Your task to perform on an android device: Look up the best rated coffee table on Ikea Image 0: 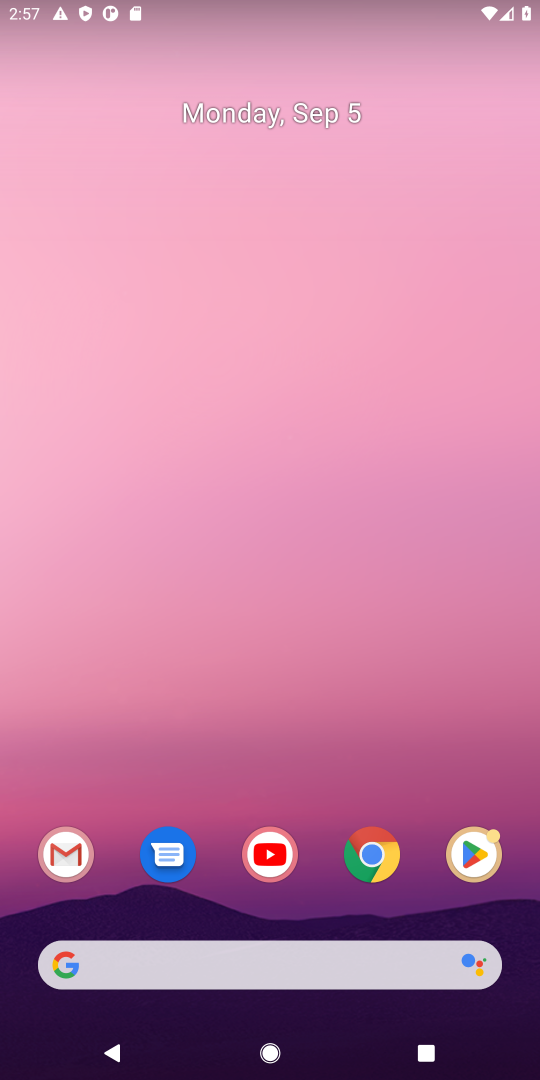
Step 0: press home button
Your task to perform on an android device: Look up the best rated coffee table on Ikea Image 1: 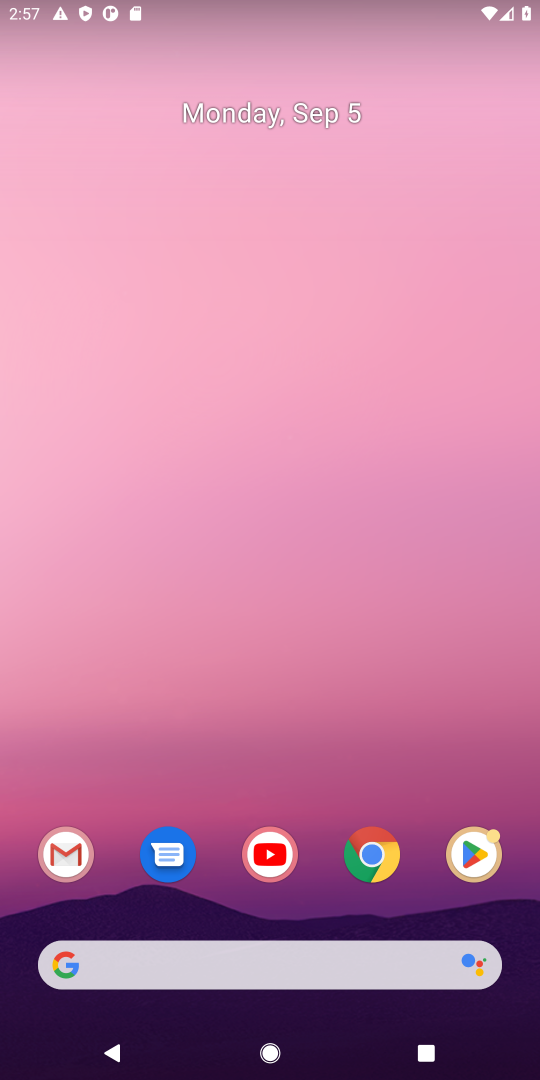
Step 1: click (289, 956)
Your task to perform on an android device: Look up the best rated coffee table on Ikea Image 2: 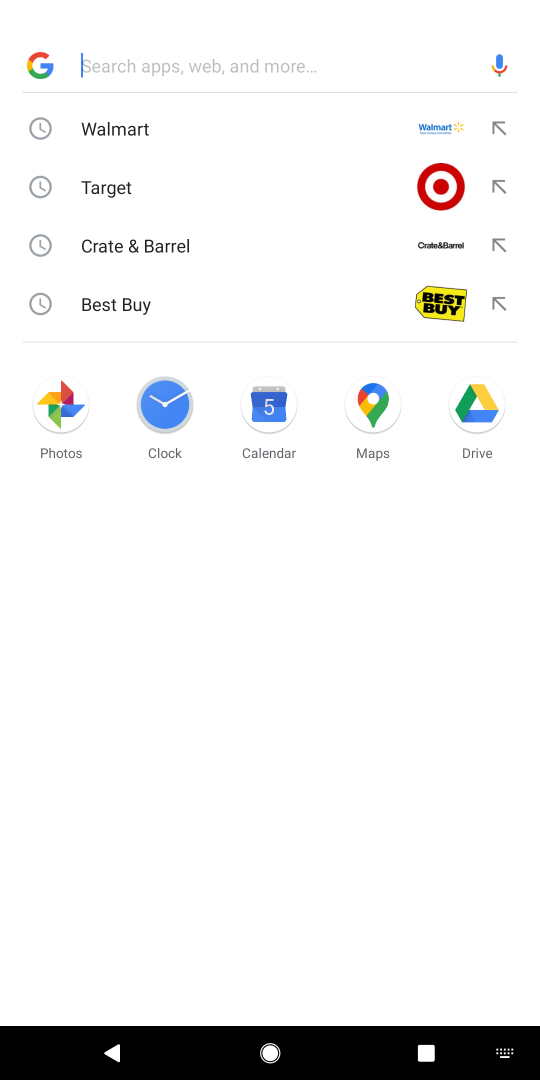
Step 2: type "ikea"
Your task to perform on an android device: Look up the best rated coffee table on Ikea Image 3: 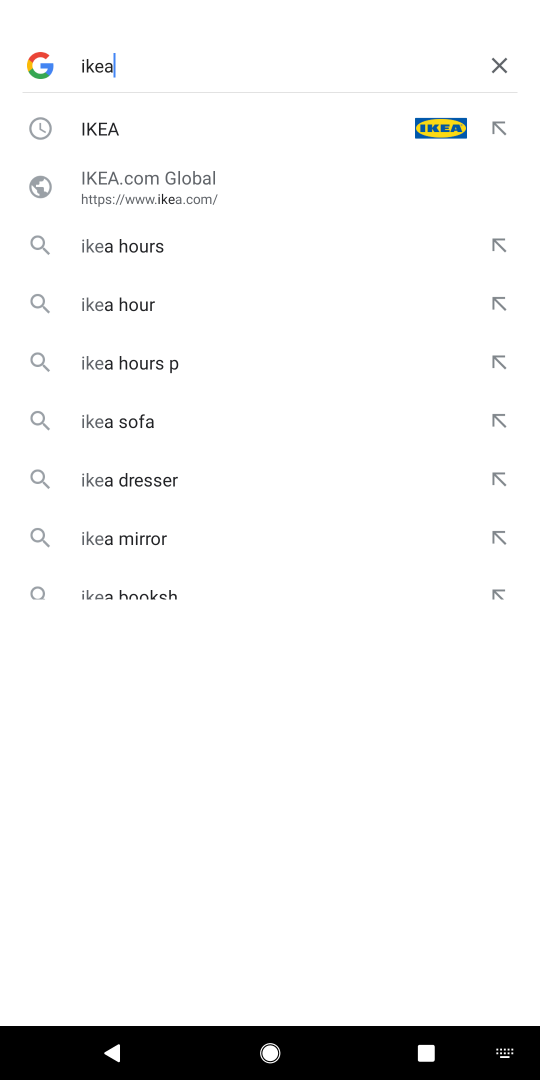
Step 3: press enter
Your task to perform on an android device: Look up the best rated coffee table on Ikea Image 4: 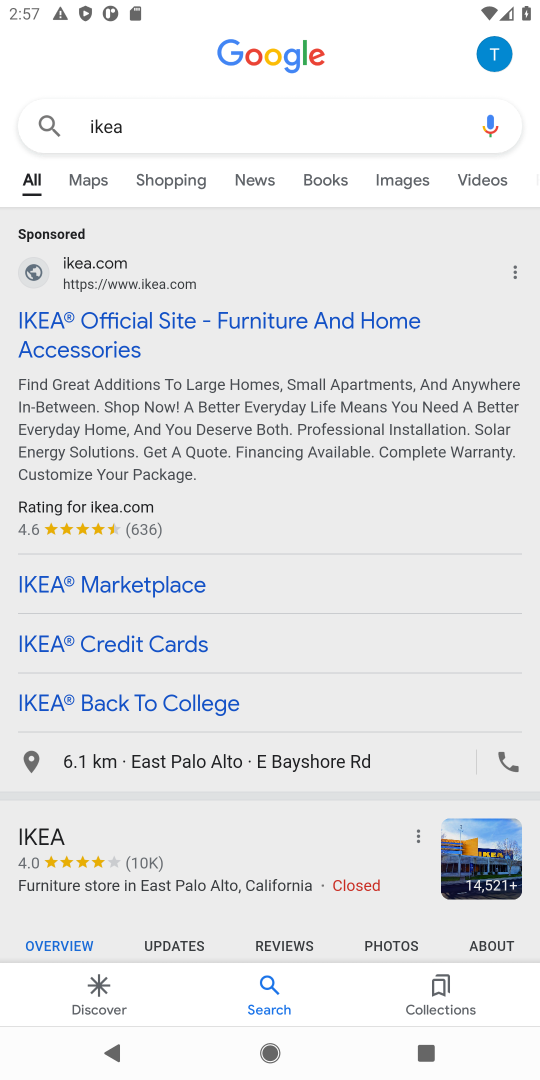
Step 4: click (142, 313)
Your task to perform on an android device: Look up the best rated coffee table on Ikea Image 5: 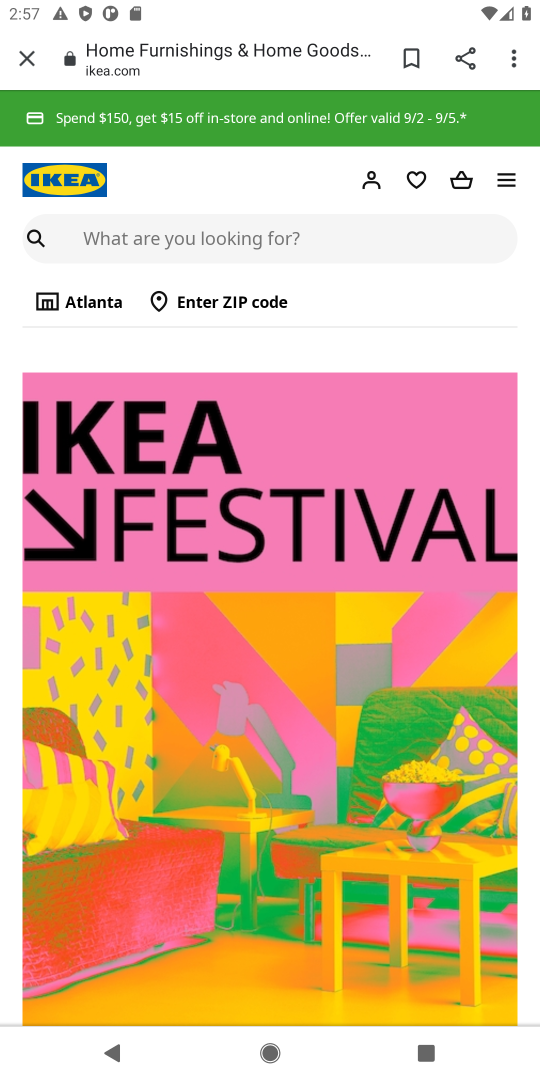
Step 5: click (187, 238)
Your task to perform on an android device: Look up the best rated coffee table on Ikea Image 6: 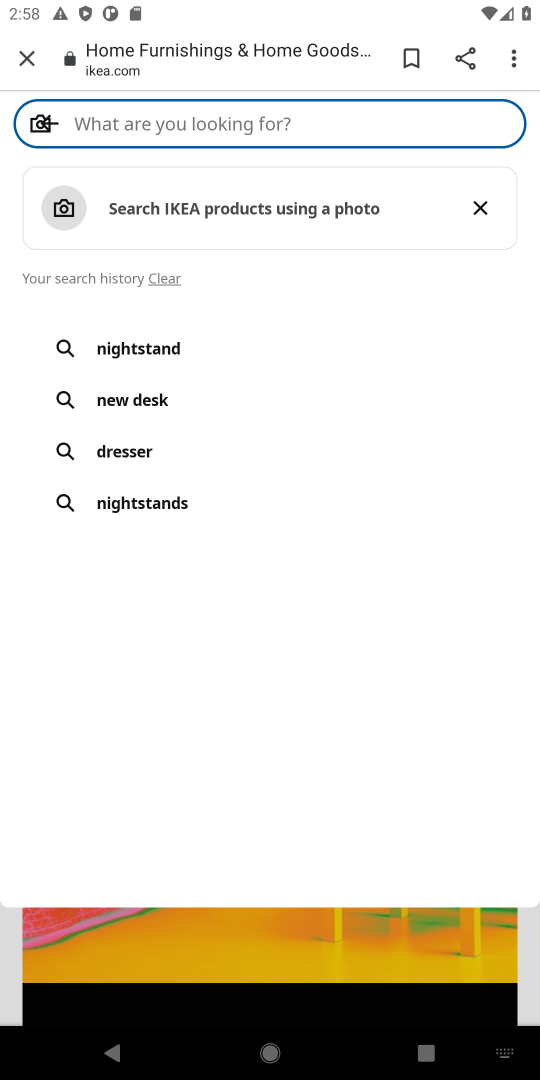
Step 6: type "best rated coffee table"
Your task to perform on an android device: Look up the best rated coffee table on Ikea Image 7: 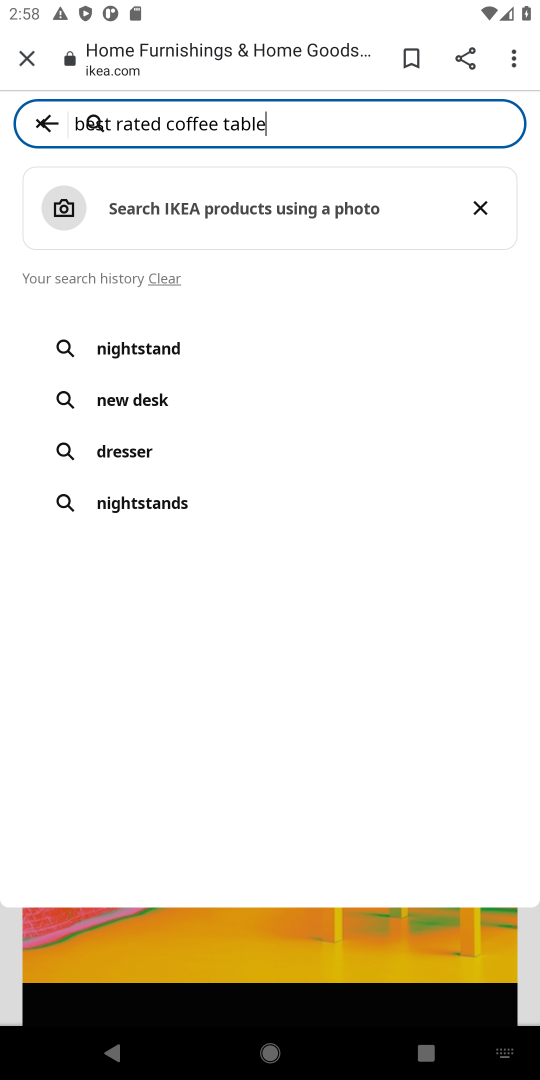
Step 7: press enter
Your task to perform on an android device: Look up the best rated coffee table on Ikea Image 8: 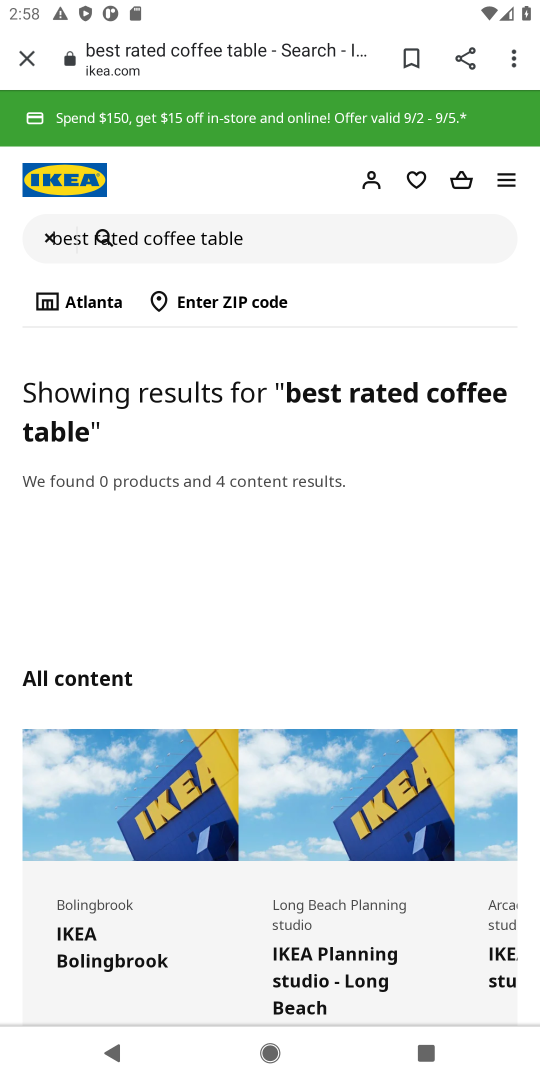
Step 8: task complete